Your task to perform on an android device: Go to privacy settings Image 0: 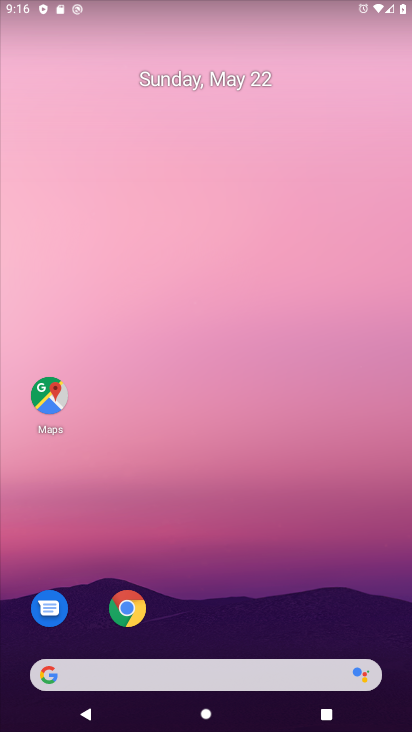
Step 0: drag from (233, 588) to (241, 13)
Your task to perform on an android device: Go to privacy settings Image 1: 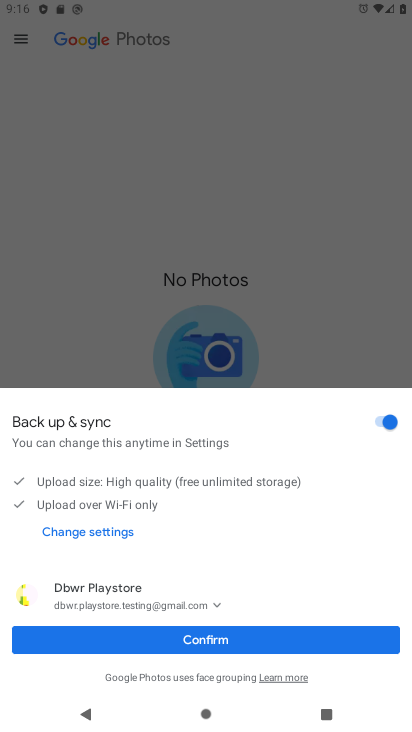
Step 1: press back button
Your task to perform on an android device: Go to privacy settings Image 2: 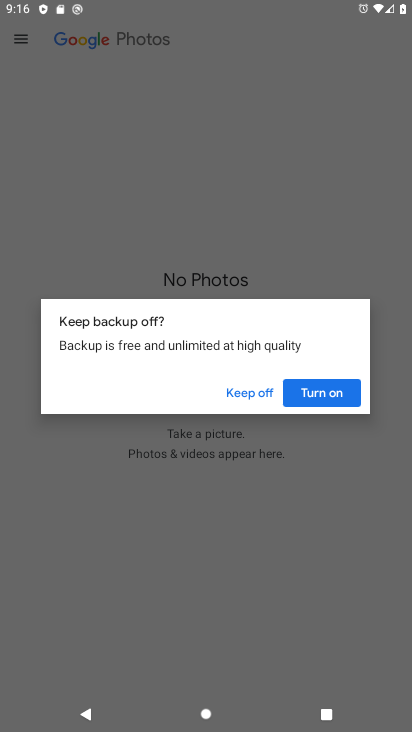
Step 2: press home button
Your task to perform on an android device: Go to privacy settings Image 3: 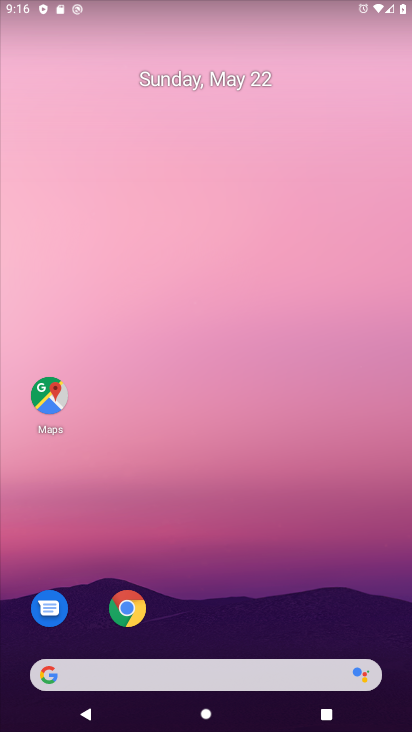
Step 3: drag from (241, 597) to (208, 5)
Your task to perform on an android device: Go to privacy settings Image 4: 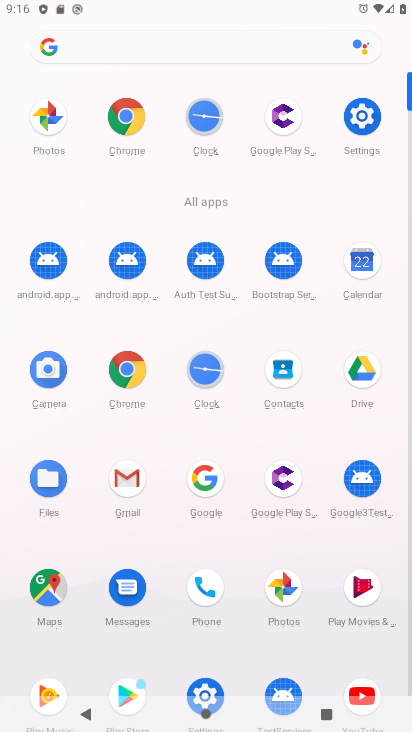
Step 4: click (360, 114)
Your task to perform on an android device: Go to privacy settings Image 5: 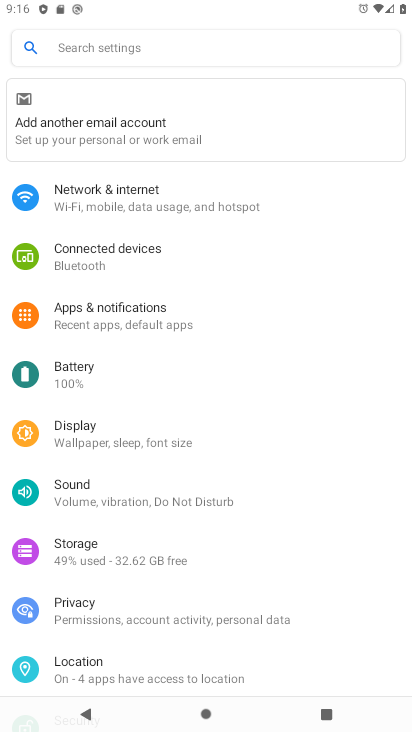
Step 5: task complete